Your task to perform on an android device: Check my gmail Image 0: 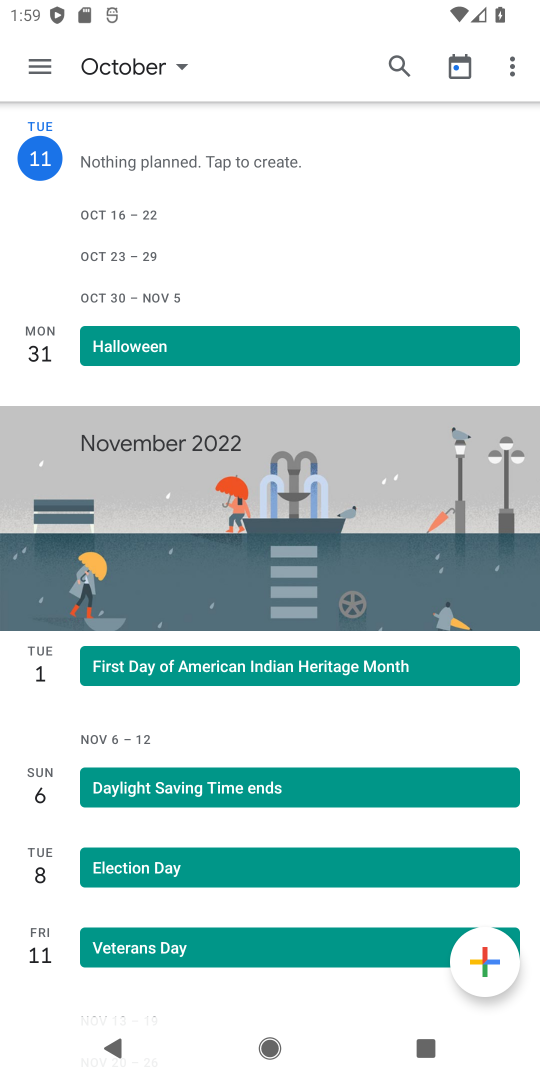
Step 0: press home button
Your task to perform on an android device: Check my gmail Image 1: 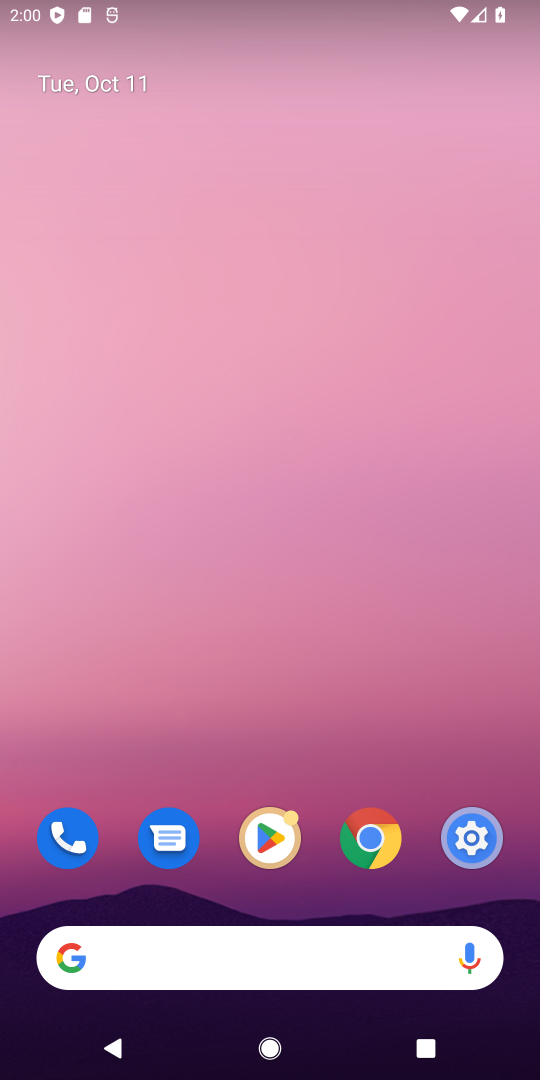
Step 1: click (373, 819)
Your task to perform on an android device: Check my gmail Image 2: 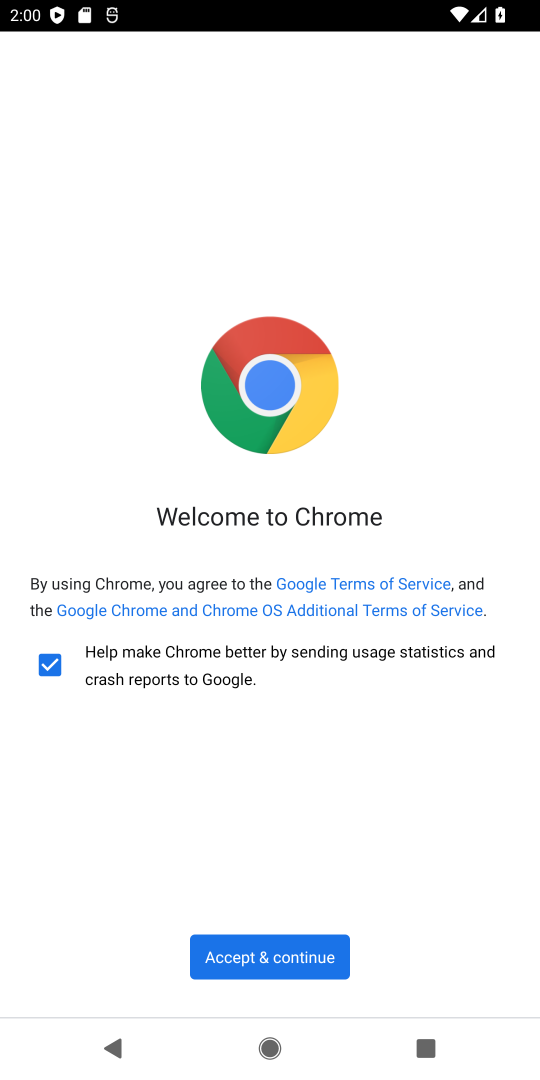
Step 2: click (271, 952)
Your task to perform on an android device: Check my gmail Image 3: 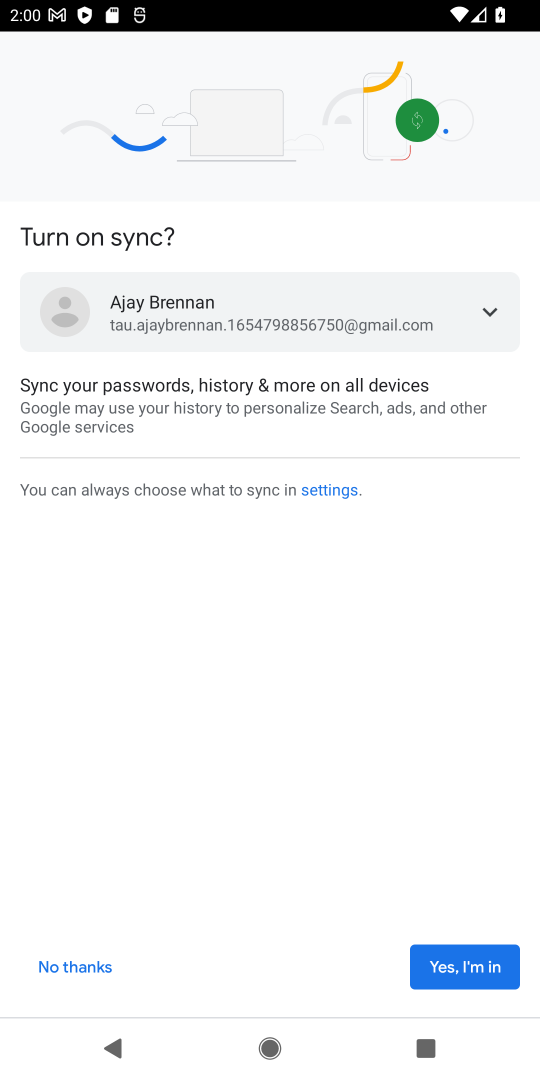
Step 3: click (453, 964)
Your task to perform on an android device: Check my gmail Image 4: 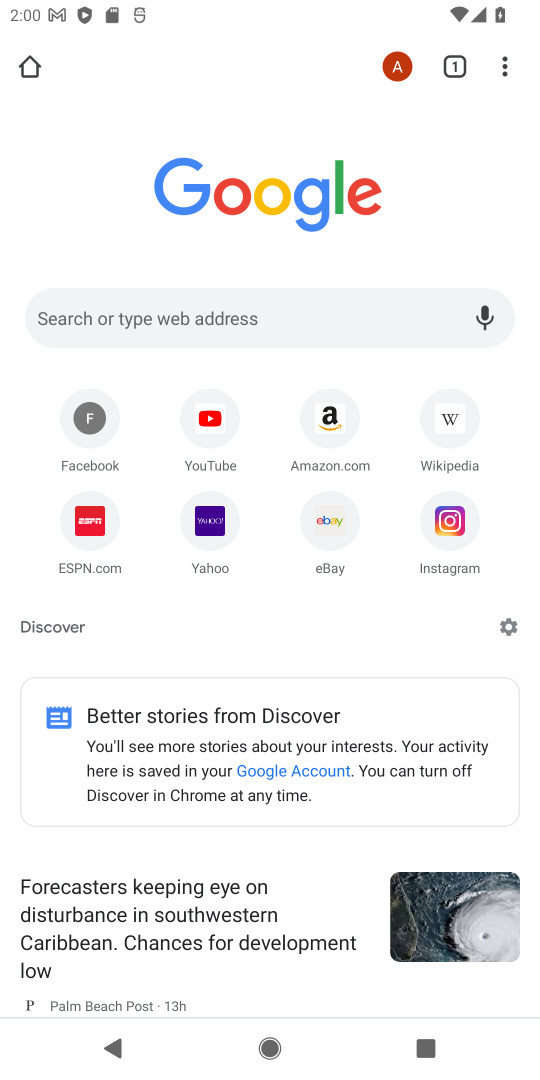
Step 4: click (215, 300)
Your task to perform on an android device: Check my gmail Image 5: 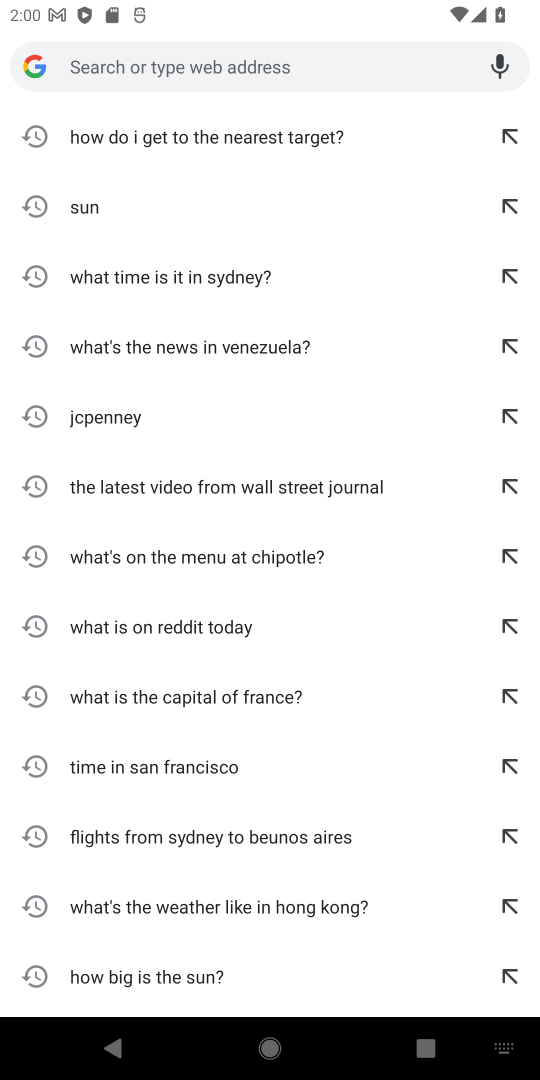
Step 5: press home button
Your task to perform on an android device: Check my gmail Image 6: 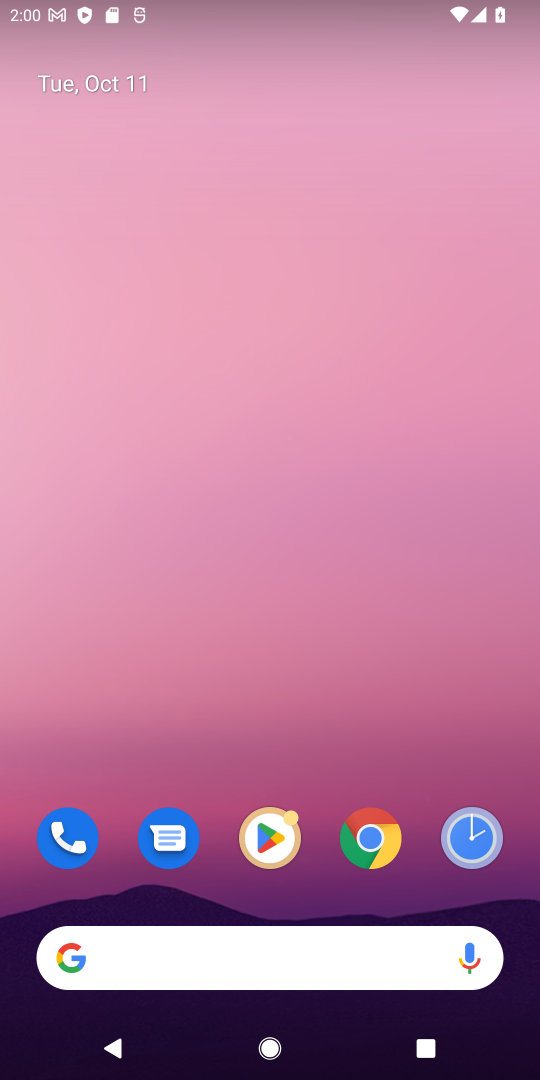
Step 6: drag from (276, 801) to (347, 401)
Your task to perform on an android device: Check my gmail Image 7: 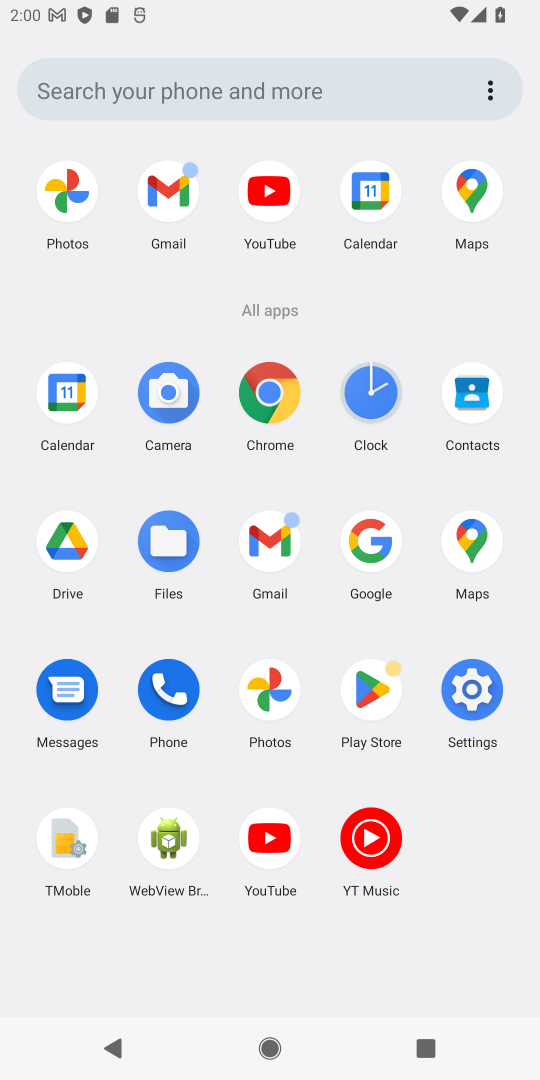
Step 7: click (272, 558)
Your task to perform on an android device: Check my gmail Image 8: 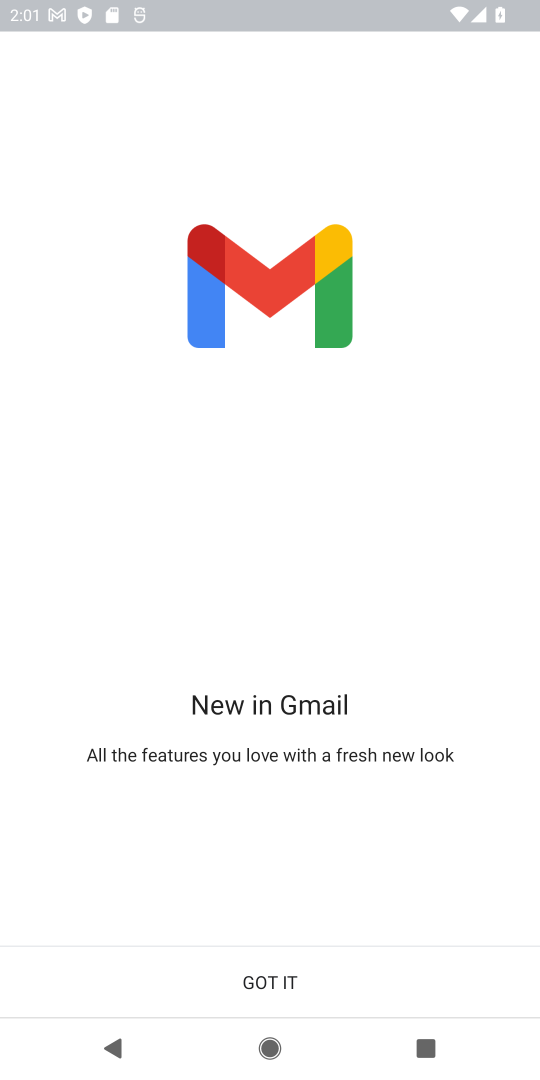
Step 8: click (263, 974)
Your task to perform on an android device: Check my gmail Image 9: 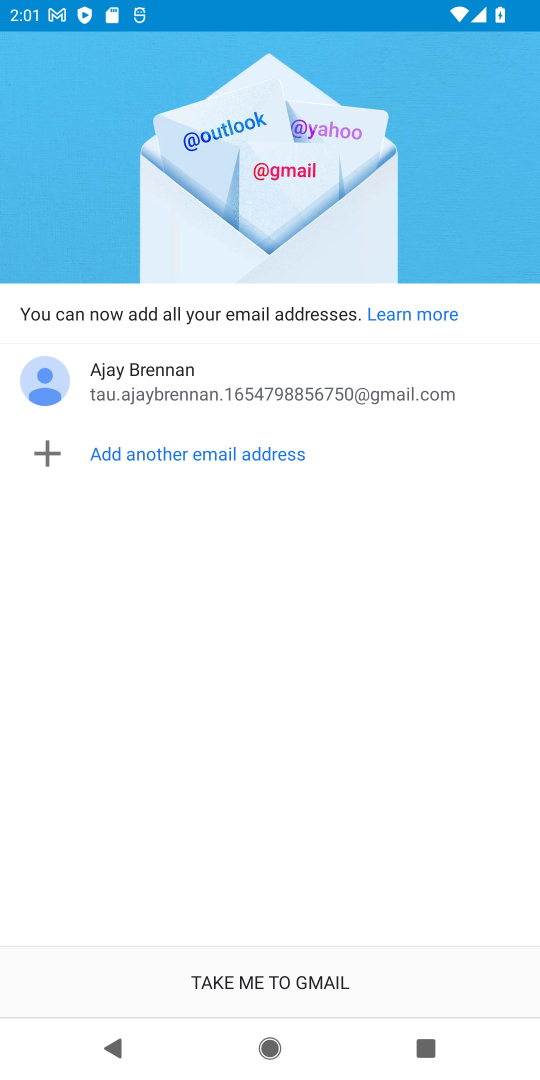
Step 9: drag from (413, 505) to (412, 346)
Your task to perform on an android device: Check my gmail Image 10: 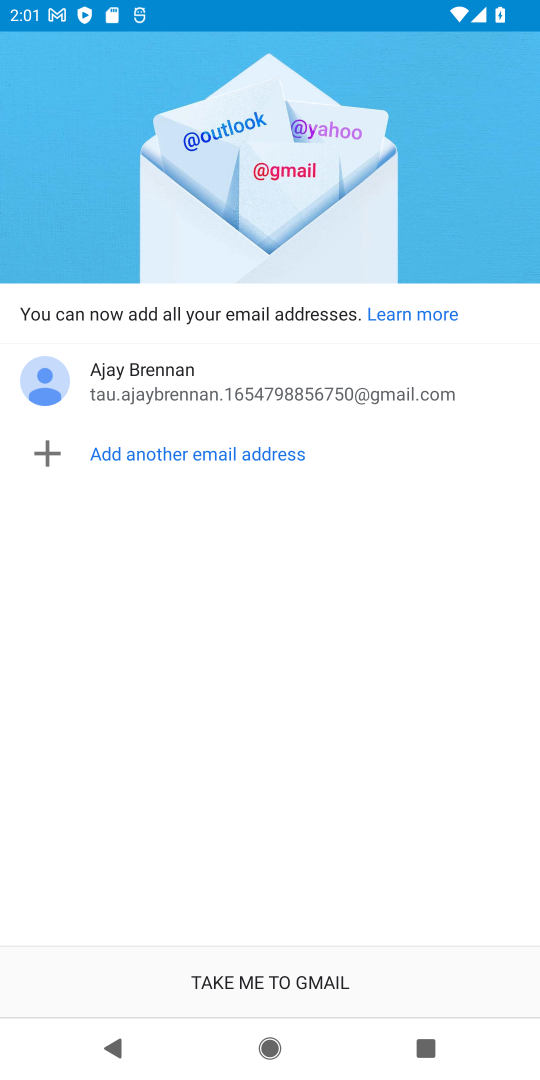
Step 10: click (357, 184)
Your task to perform on an android device: Check my gmail Image 11: 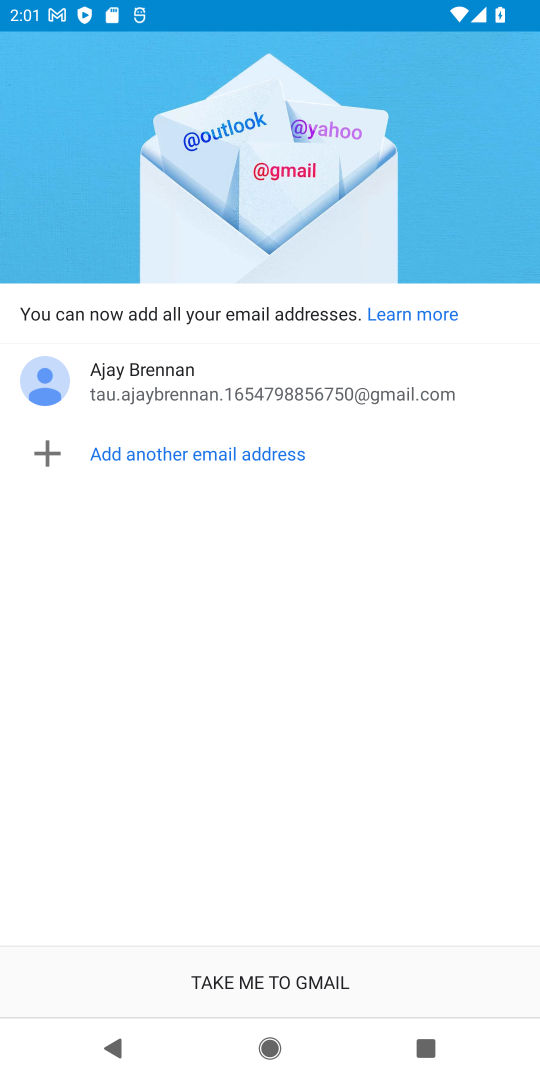
Step 11: click (160, 374)
Your task to perform on an android device: Check my gmail Image 12: 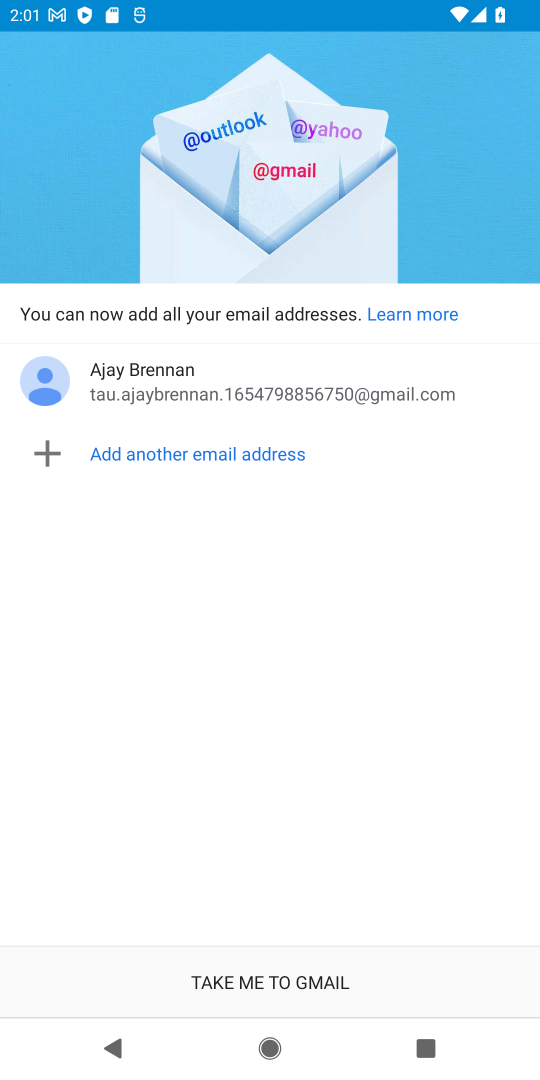
Step 12: drag from (275, 799) to (314, 451)
Your task to perform on an android device: Check my gmail Image 13: 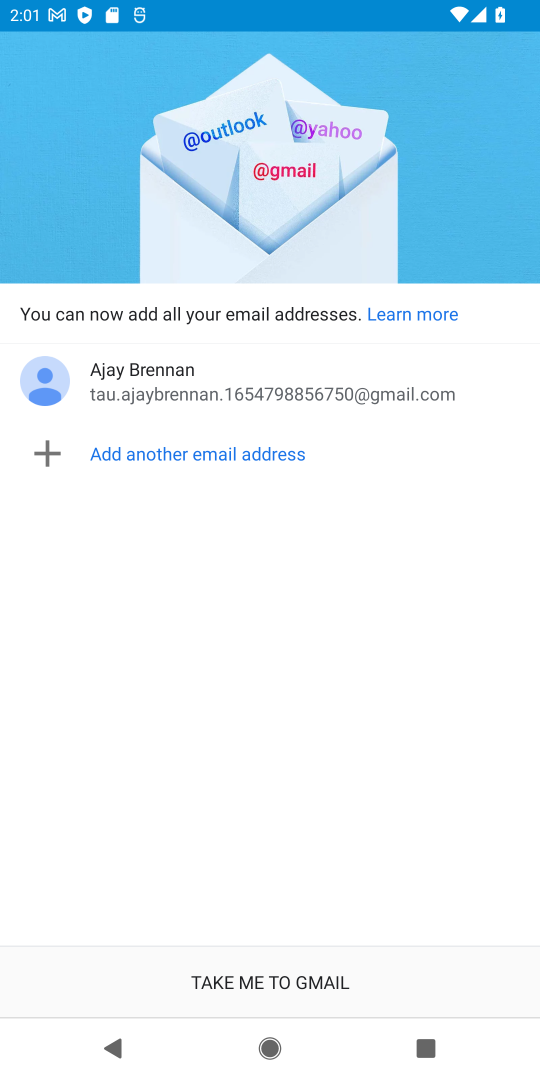
Step 13: click (99, 366)
Your task to perform on an android device: Check my gmail Image 14: 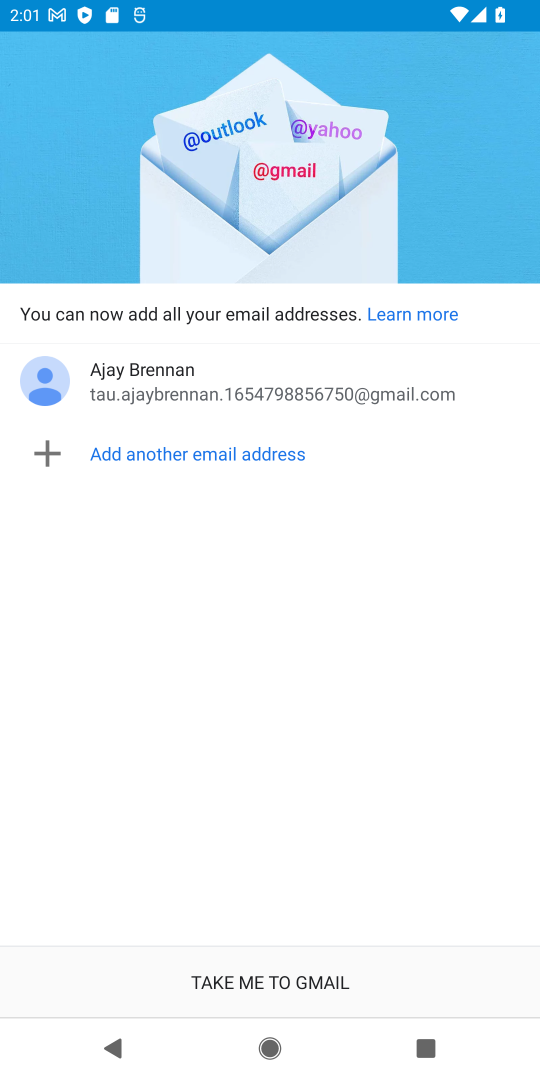
Step 14: click (214, 199)
Your task to perform on an android device: Check my gmail Image 15: 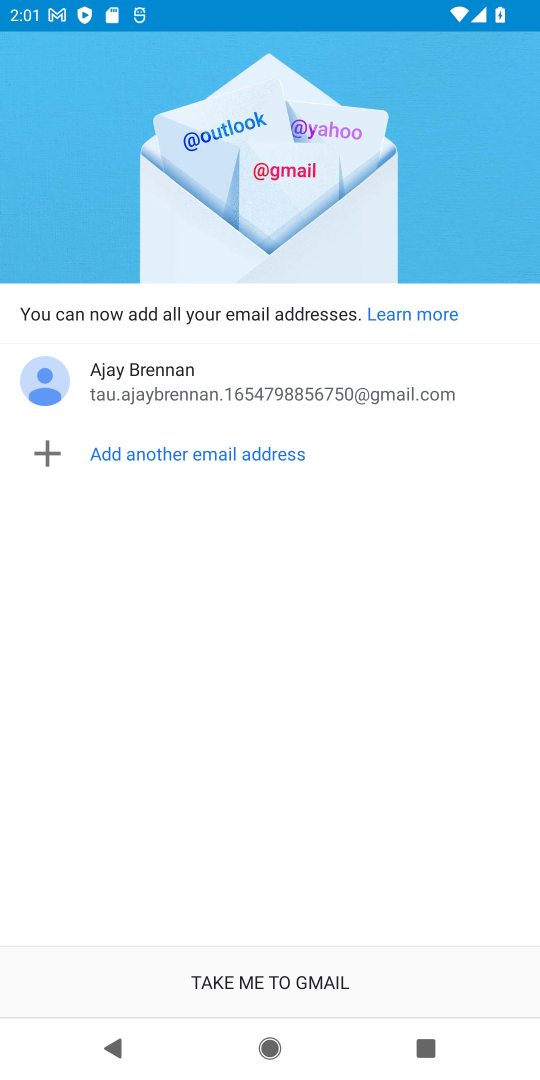
Step 15: click (288, 966)
Your task to perform on an android device: Check my gmail Image 16: 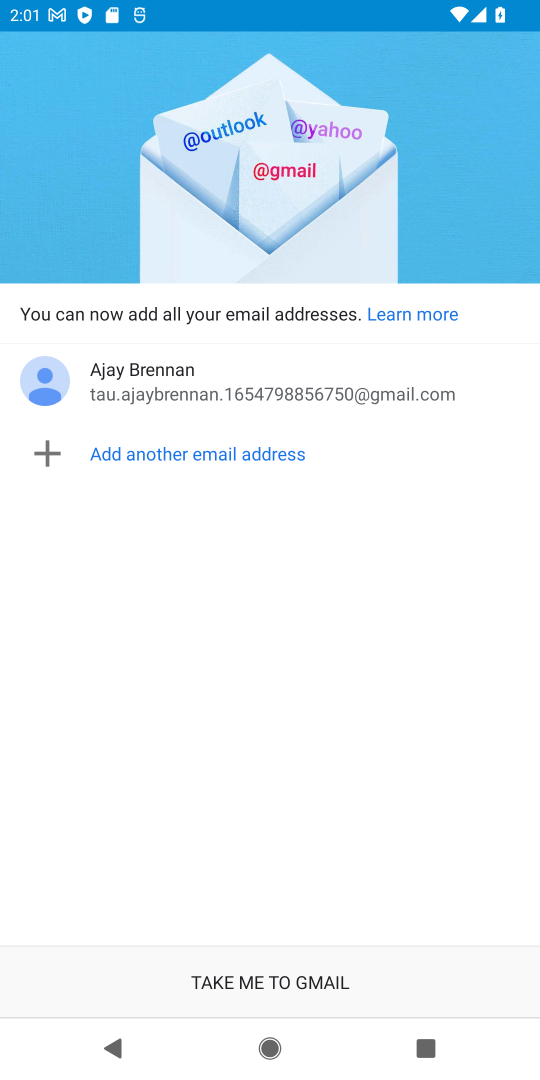
Step 16: click (223, 982)
Your task to perform on an android device: Check my gmail Image 17: 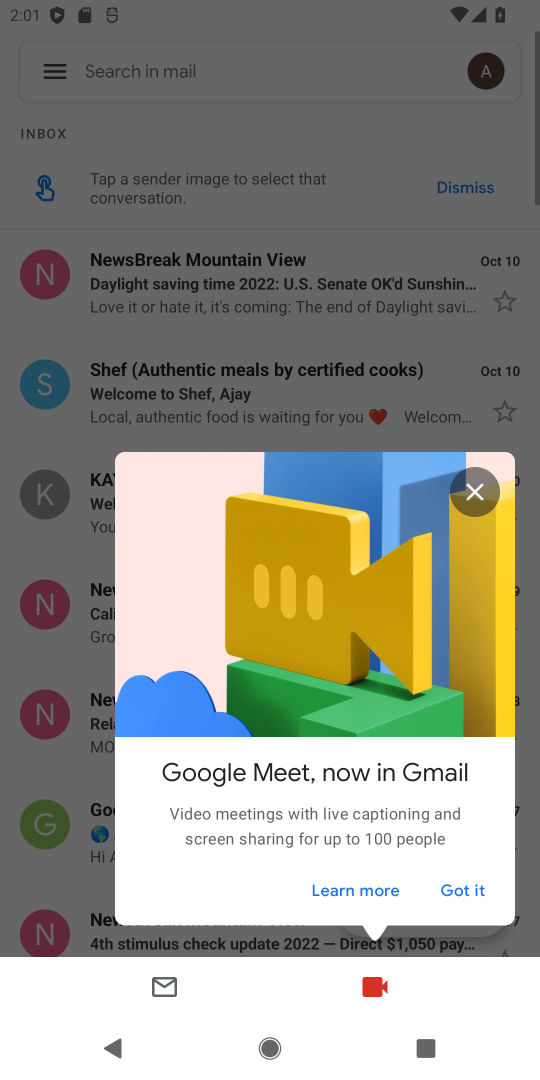
Step 17: click (473, 491)
Your task to perform on an android device: Check my gmail Image 18: 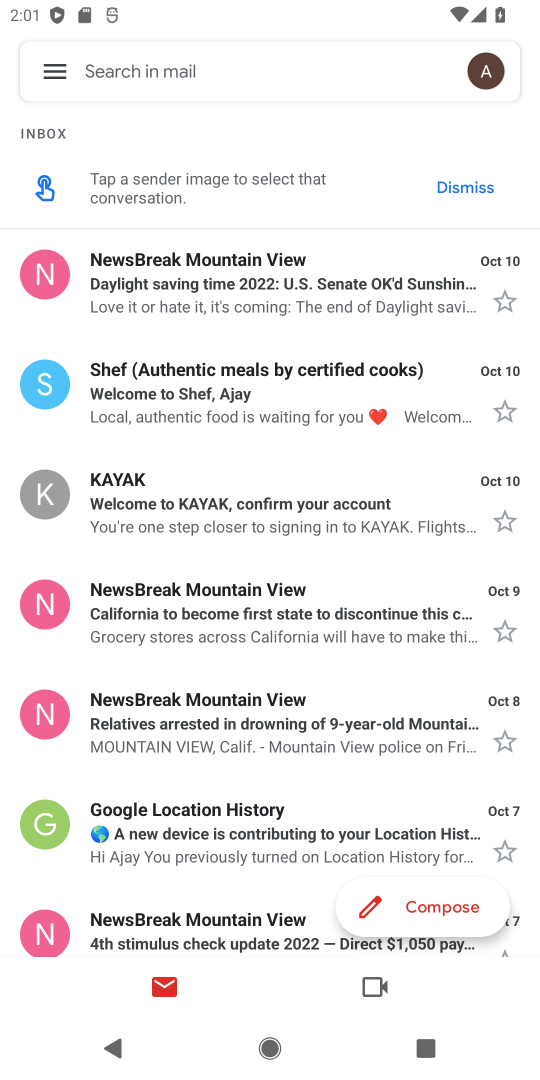
Step 18: task complete